Your task to perform on an android device: check data usage Image 0: 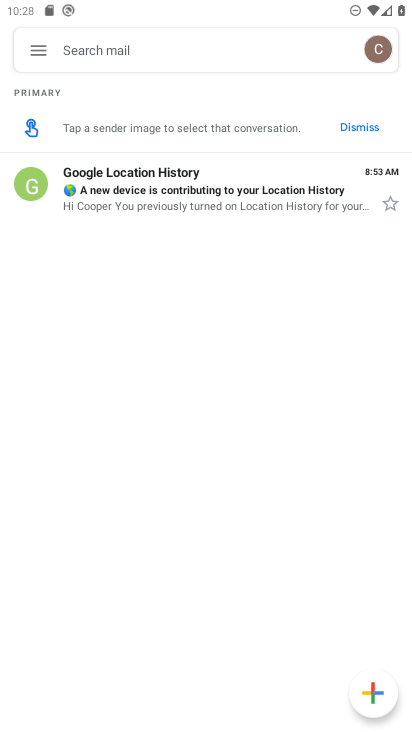
Step 0: press home button
Your task to perform on an android device: check data usage Image 1: 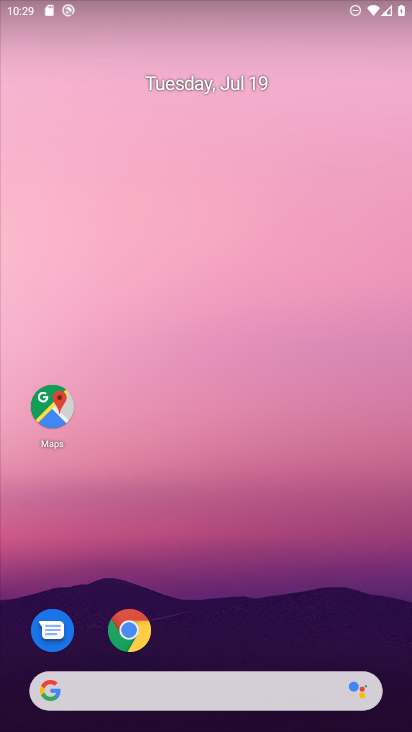
Step 1: drag from (190, 625) to (163, 124)
Your task to perform on an android device: check data usage Image 2: 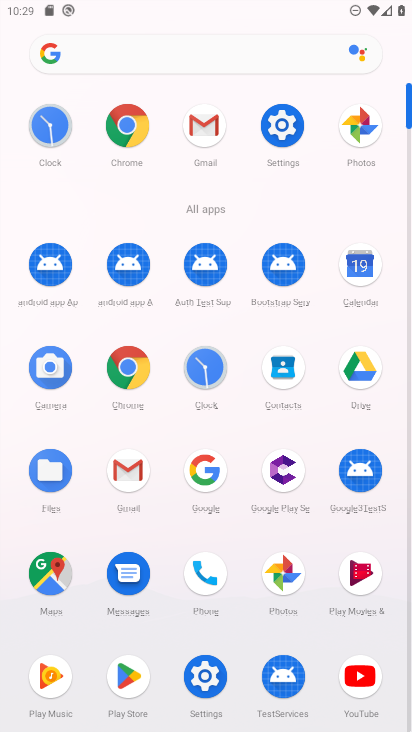
Step 2: click (293, 128)
Your task to perform on an android device: check data usage Image 3: 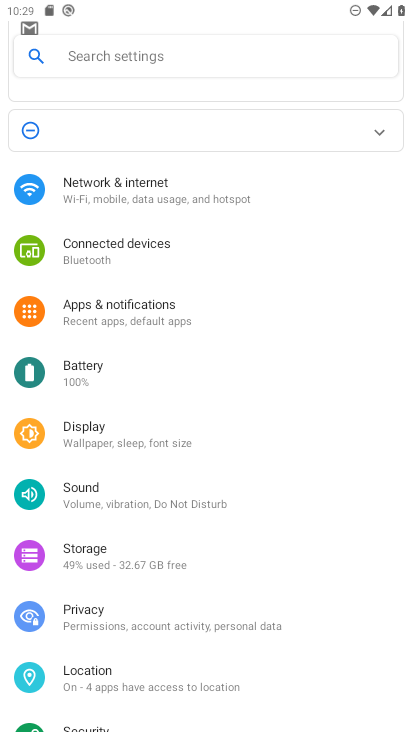
Step 3: click (167, 209)
Your task to perform on an android device: check data usage Image 4: 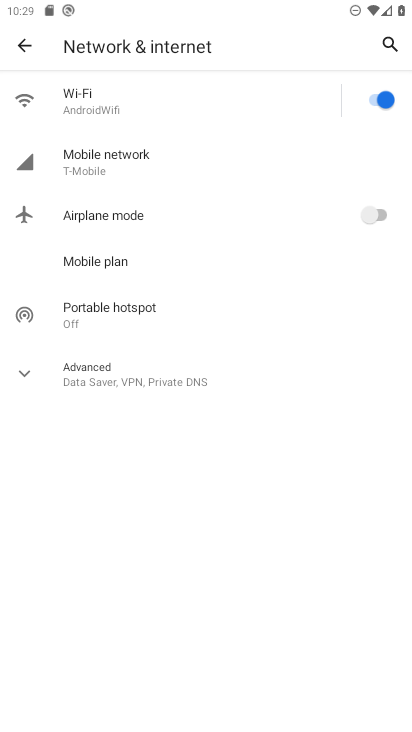
Step 4: click (143, 175)
Your task to perform on an android device: check data usage Image 5: 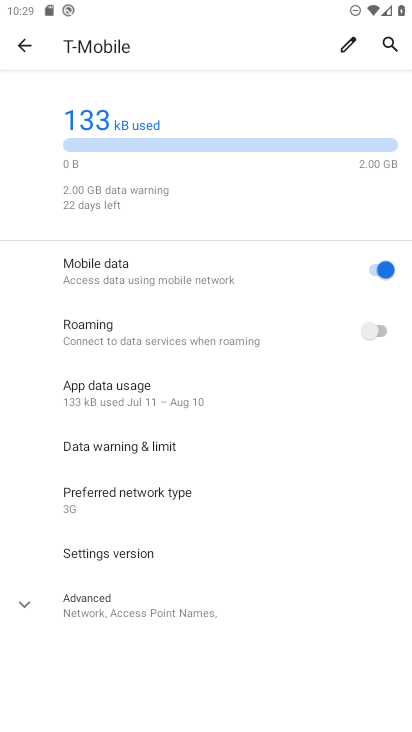
Step 5: click (171, 387)
Your task to perform on an android device: check data usage Image 6: 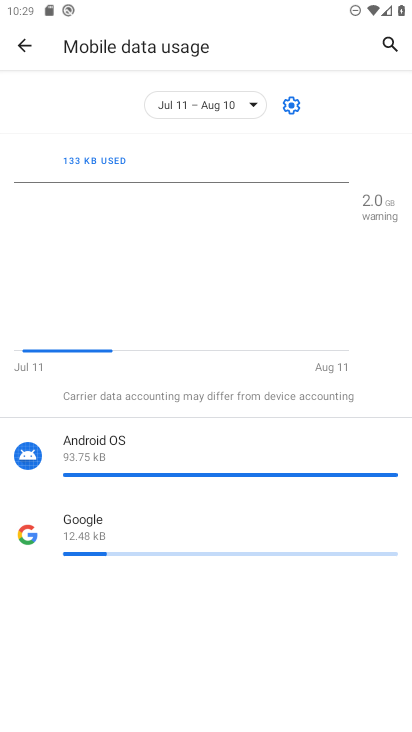
Step 6: task complete